Your task to perform on an android device: Open CNN.com Image 0: 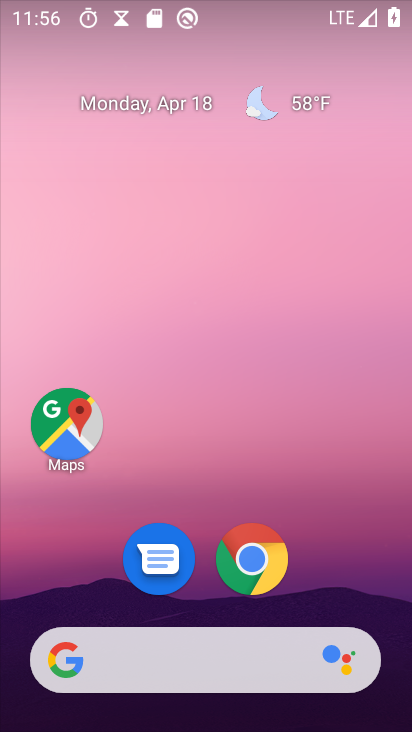
Step 0: click (259, 553)
Your task to perform on an android device: Open CNN.com Image 1: 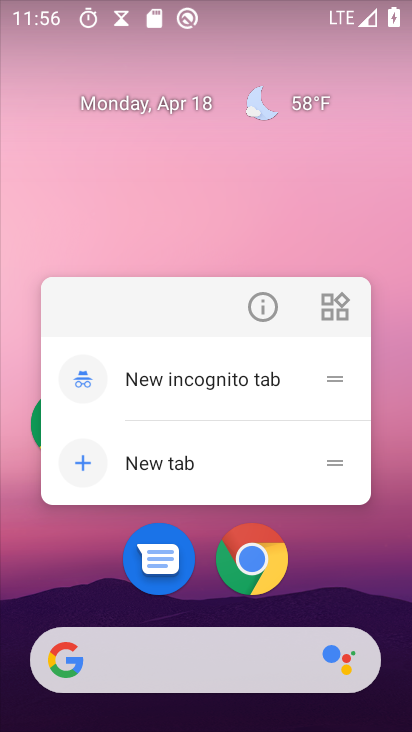
Step 1: click (261, 309)
Your task to perform on an android device: Open CNN.com Image 2: 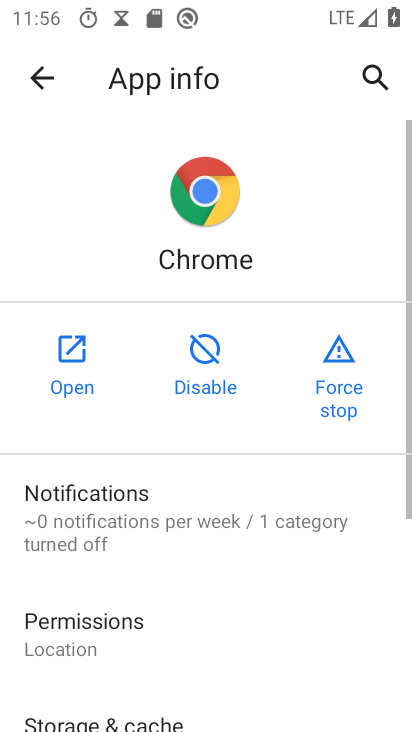
Step 2: click (62, 355)
Your task to perform on an android device: Open CNN.com Image 3: 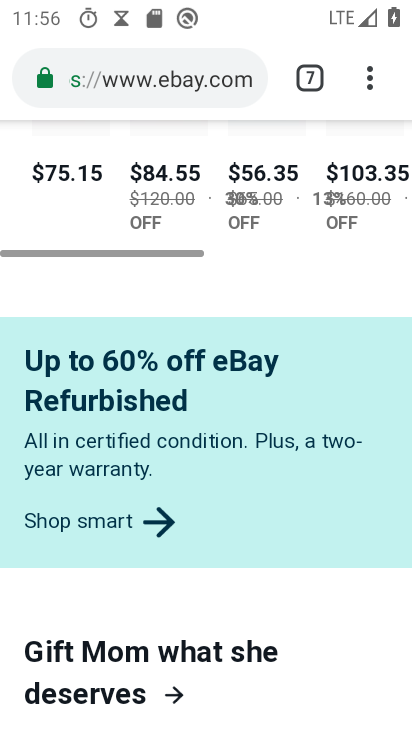
Step 3: click (315, 90)
Your task to perform on an android device: Open CNN.com Image 4: 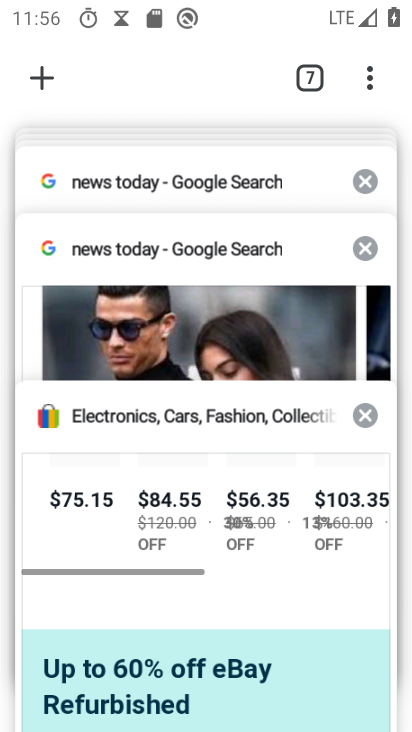
Step 4: click (43, 74)
Your task to perform on an android device: Open CNN.com Image 5: 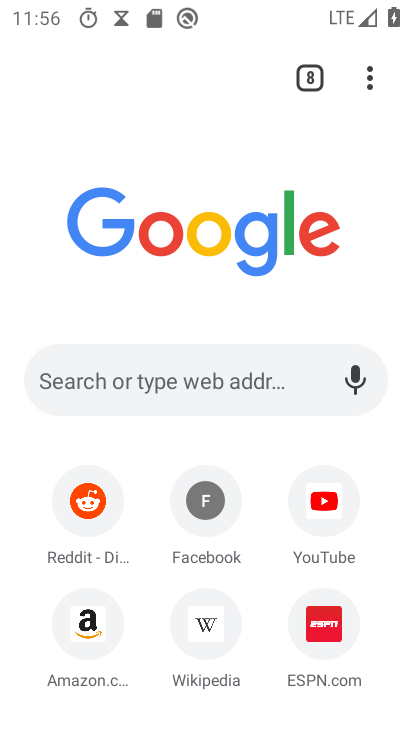
Step 5: click (181, 387)
Your task to perform on an android device: Open CNN.com Image 6: 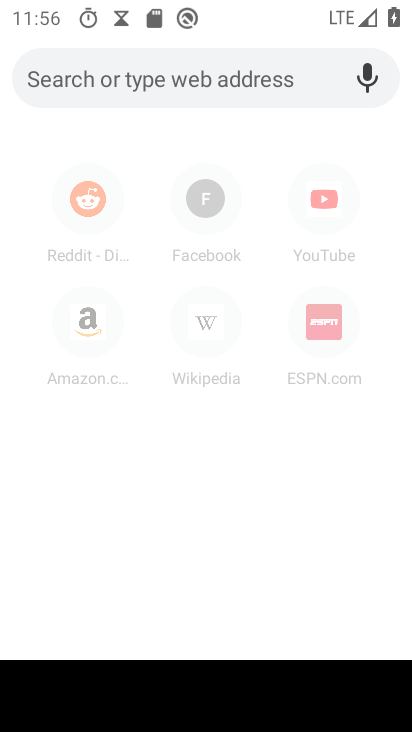
Step 6: type "cnn.com"
Your task to perform on an android device: Open CNN.com Image 7: 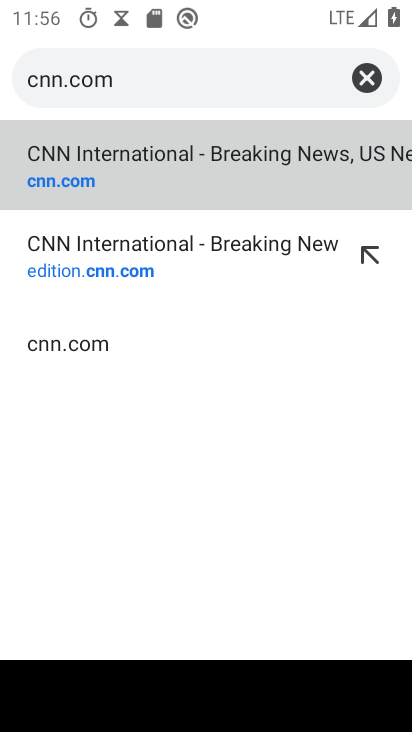
Step 7: click (150, 173)
Your task to perform on an android device: Open CNN.com Image 8: 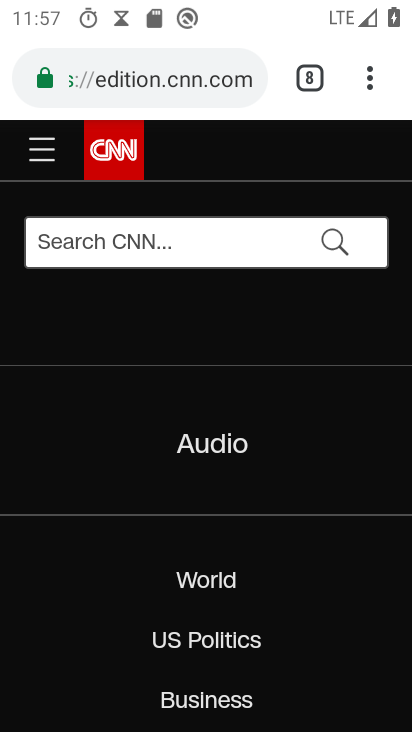
Step 8: task complete